Your task to perform on an android device: Open Chrome and go to settings Image 0: 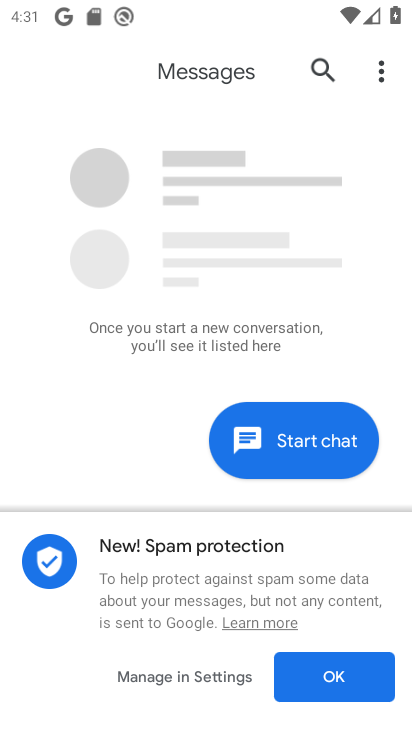
Step 0: press home button
Your task to perform on an android device: Open Chrome and go to settings Image 1: 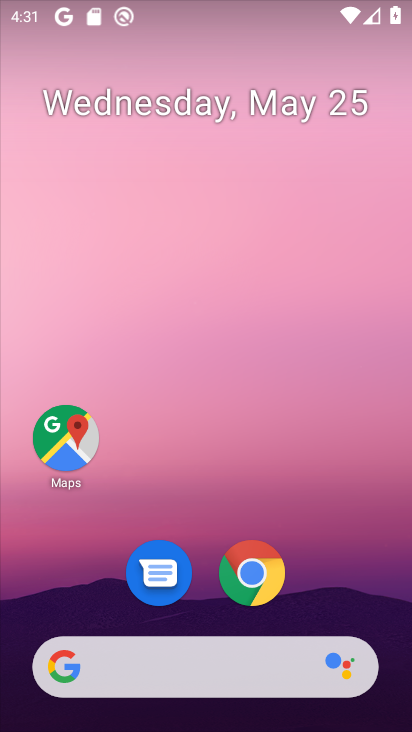
Step 1: click (256, 572)
Your task to perform on an android device: Open Chrome and go to settings Image 2: 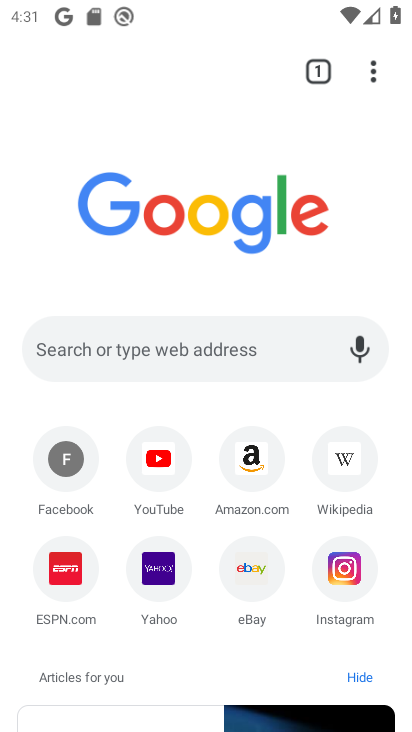
Step 2: click (371, 77)
Your task to perform on an android device: Open Chrome and go to settings Image 3: 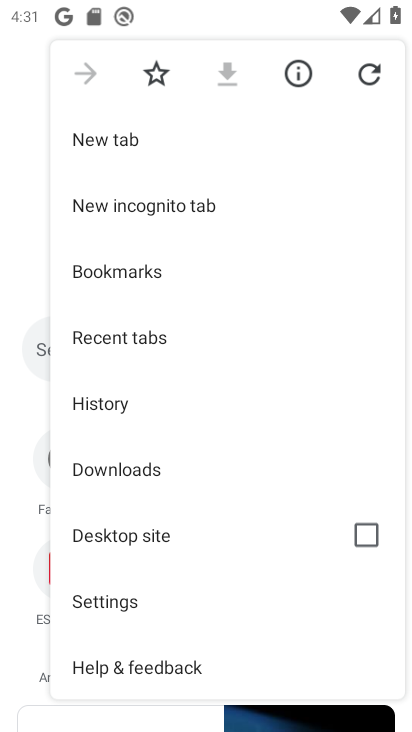
Step 3: click (118, 596)
Your task to perform on an android device: Open Chrome and go to settings Image 4: 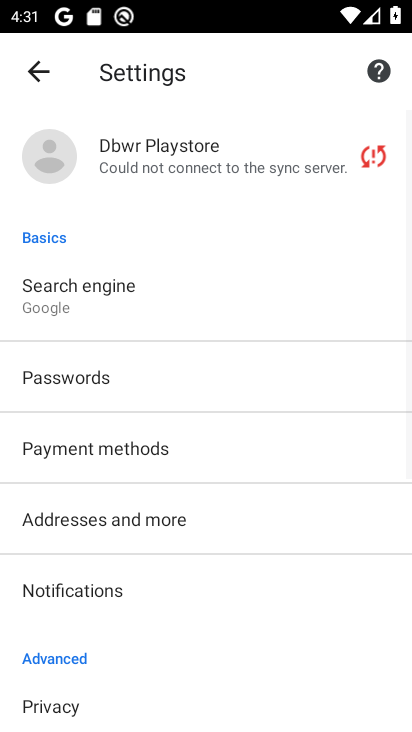
Step 4: task complete